Your task to perform on an android device: Search for seafood restaurants on Google Maps Image 0: 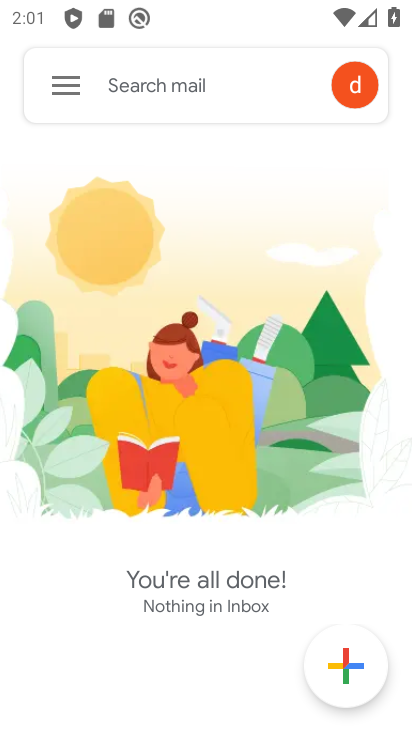
Step 0: press back button
Your task to perform on an android device: Search for seafood restaurants on Google Maps Image 1: 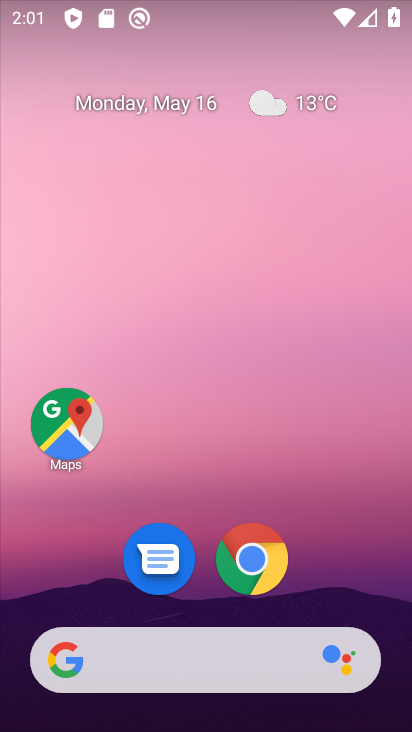
Step 1: click (69, 427)
Your task to perform on an android device: Search for seafood restaurants on Google Maps Image 2: 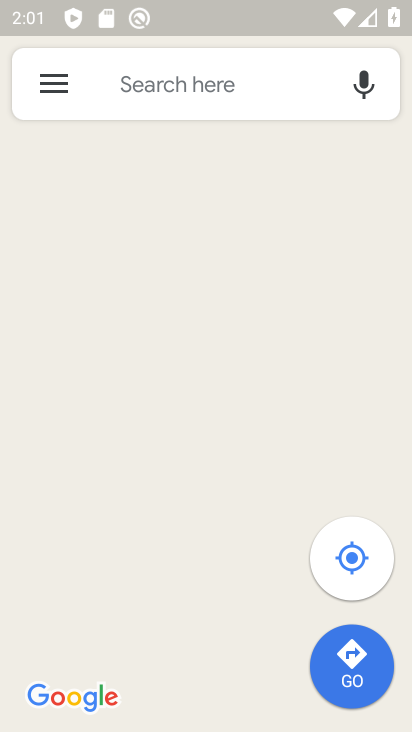
Step 2: click (172, 82)
Your task to perform on an android device: Search for seafood restaurants on Google Maps Image 3: 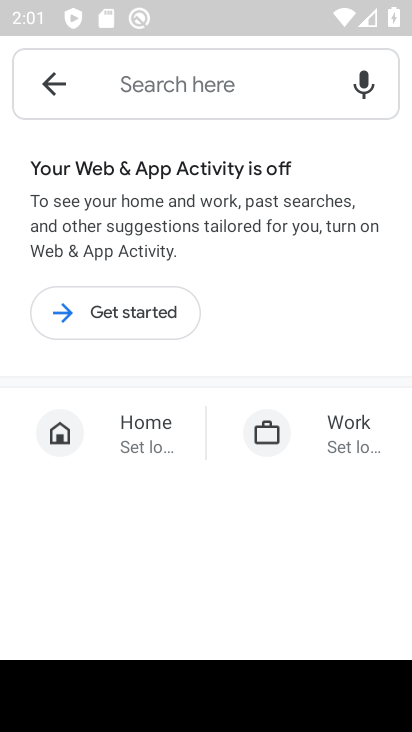
Step 3: click (173, 92)
Your task to perform on an android device: Search for seafood restaurants on Google Maps Image 4: 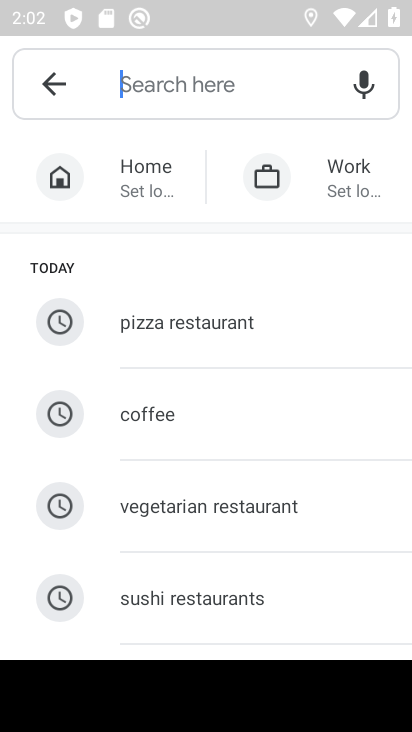
Step 4: type "seafood"
Your task to perform on an android device: Search for seafood restaurants on Google Maps Image 5: 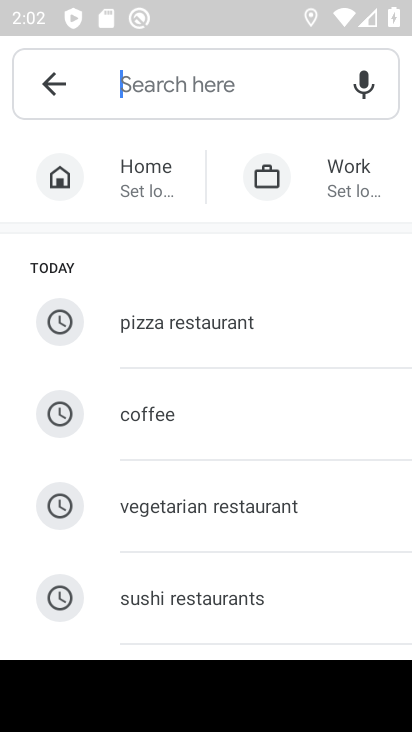
Step 5: click (266, 141)
Your task to perform on an android device: Search for seafood restaurants on Google Maps Image 6: 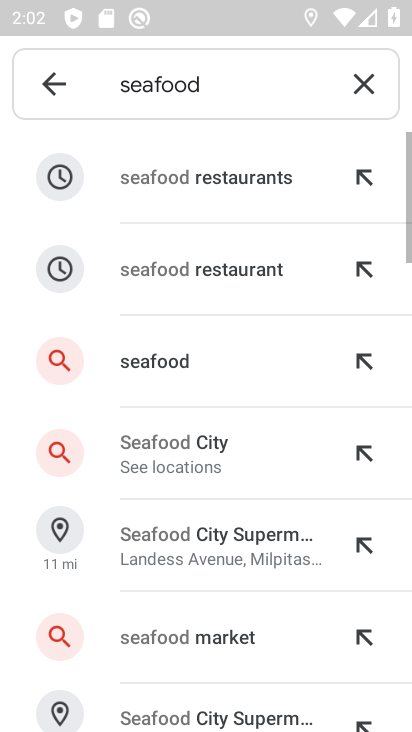
Step 6: click (241, 161)
Your task to perform on an android device: Search for seafood restaurants on Google Maps Image 7: 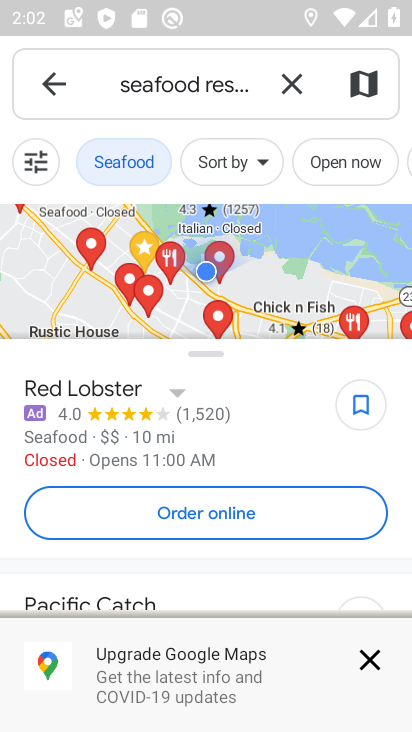
Step 7: task complete